Your task to perform on an android device: turn notification dots off Image 0: 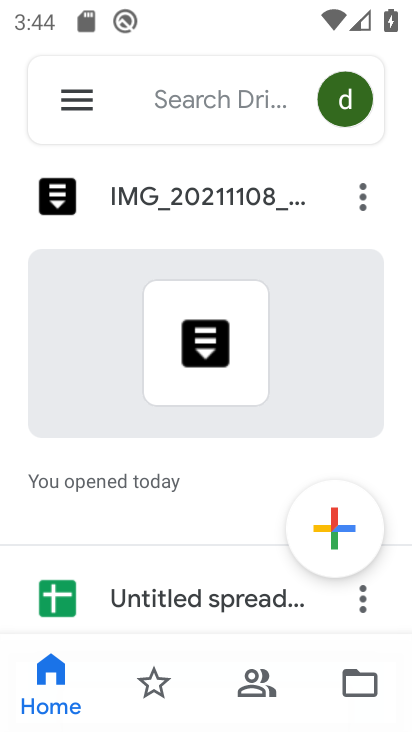
Step 0: press back button
Your task to perform on an android device: turn notification dots off Image 1: 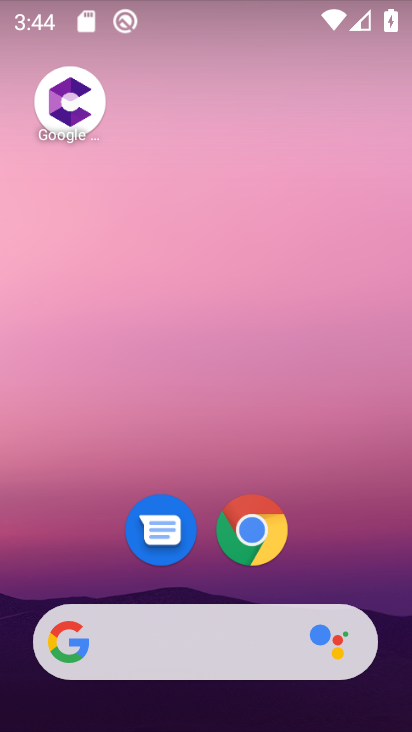
Step 1: drag from (138, 579) to (226, 48)
Your task to perform on an android device: turn notification dots off Image 2: 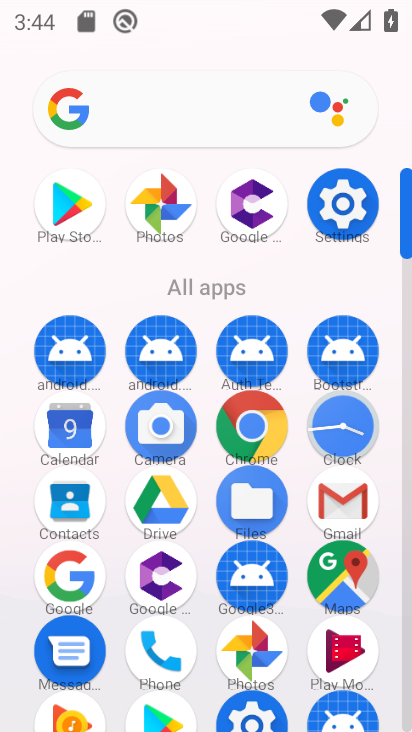
Step 2: click (351, 193)
Your task to perform on an android device: turn notification dots off Image 3: 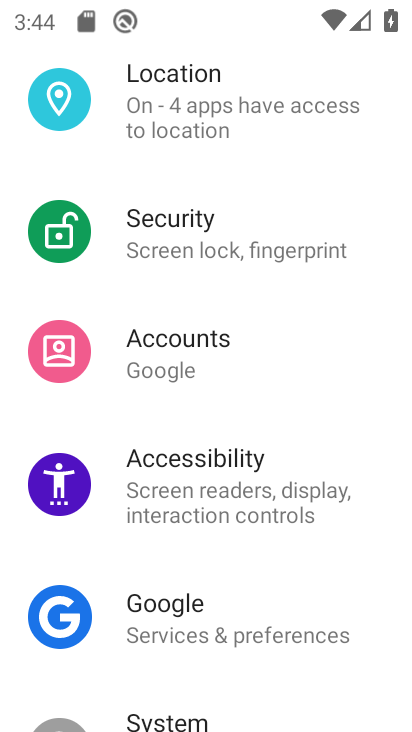
Step 3: drag from (276, 128) to (224, 676)
Your task to perform on an android device: turn notification dots off Image 4: 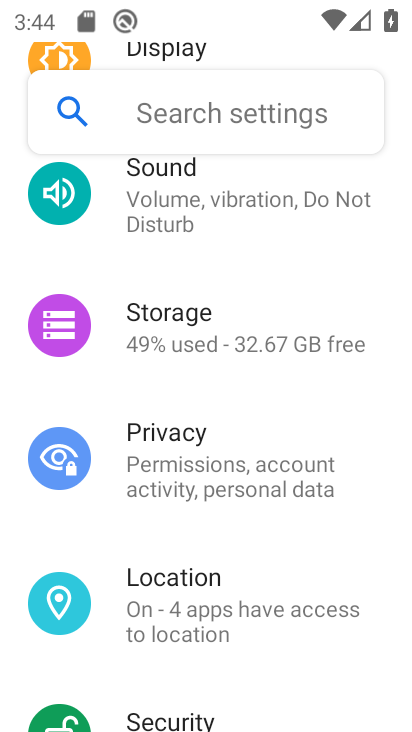
Step 4: drag from (251, 252) to (178, 725)
Your task to perform on an android device: turn notification dots off Image 5: 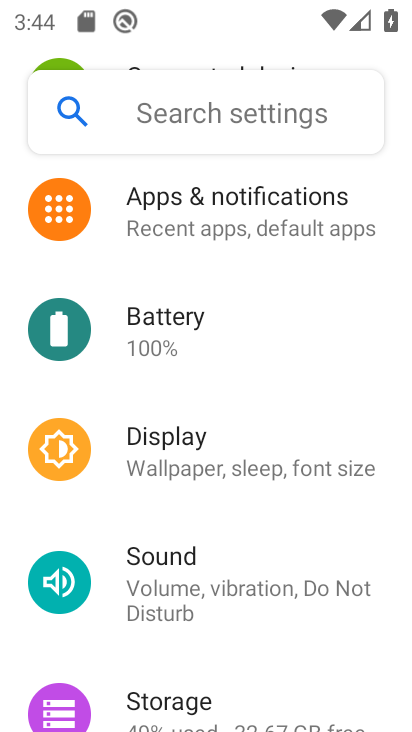
Step 5: click (252, 207)
Your task to perform on an android device: turn notification dots off Image 6: 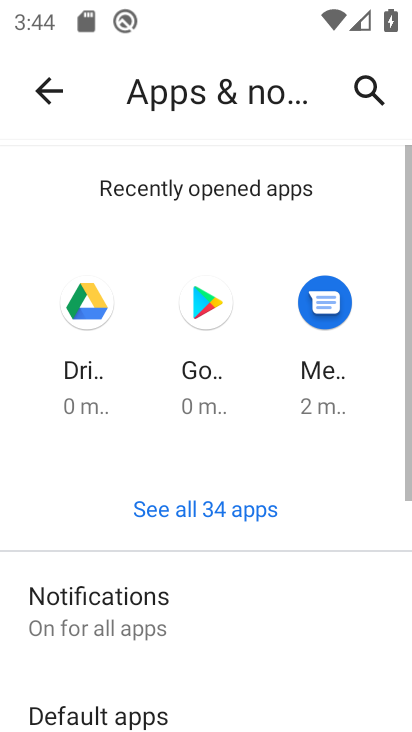
Step 6: drag from (98, 684) to (216, 298)
Your task to perform on an android device: turn notification dots off Image 7: 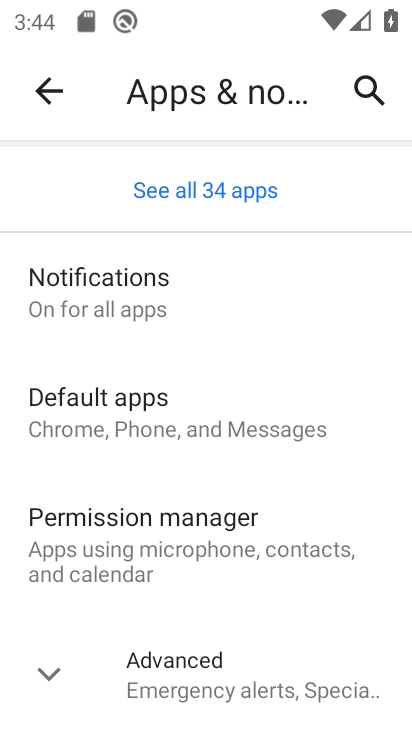
Step 7: click (135, 264)
Your task to perform on an android device: turn notification dots off Image 8: 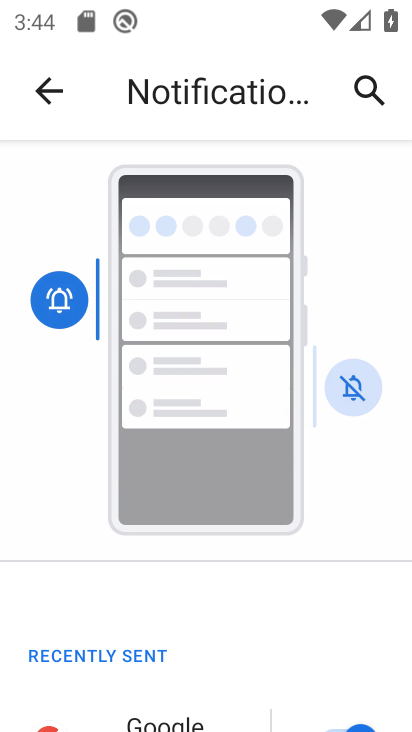
Step 8: drag from (150, 678) to (264, 138)
Your task to perform on an android device: turn notification dots off Image 9: 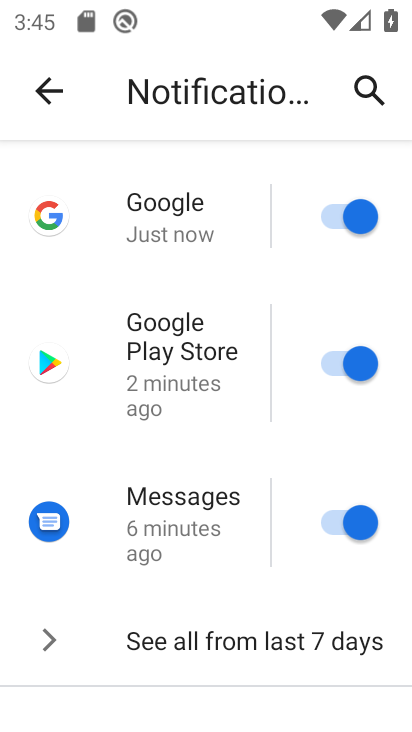
Step 9: drag from (189, 694) to (294, 154)
Your task to perform on an android device: turn notification dots off Image 10: 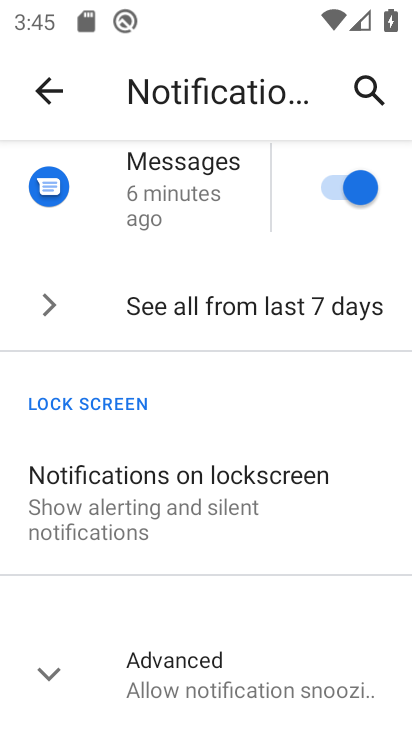
Step 10: click (173, 686)
Your task to perform on an android device: turn notification dots off Image 11: 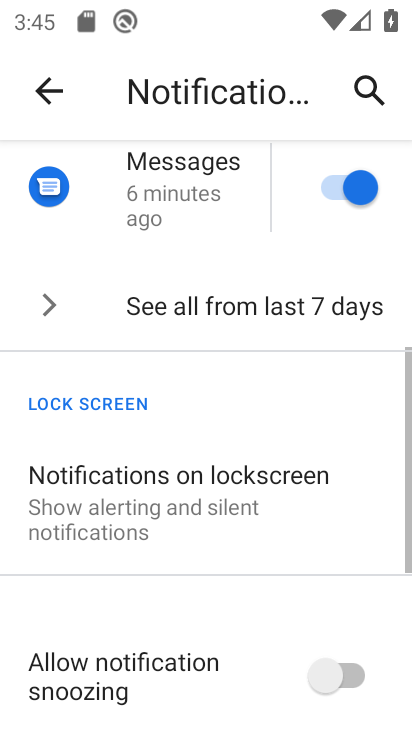
Step 11: drag from (173, 685) to (261, 253)
Your task to perform on an android device: turn notification dots off Image 12: 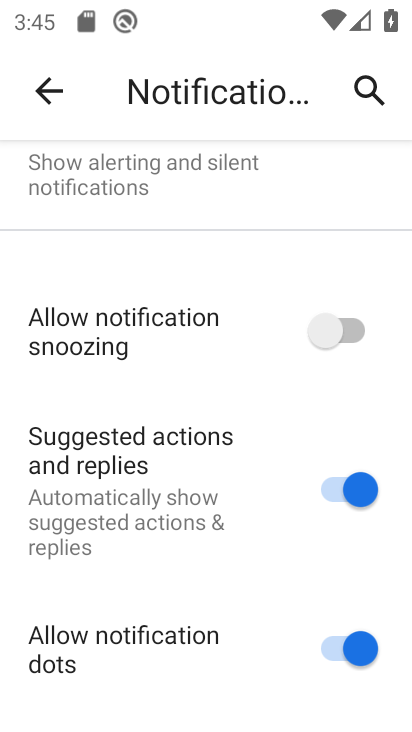
Step 12: click (349, 654)
Your task to perform on an android device: turn notification dots off Image 13: 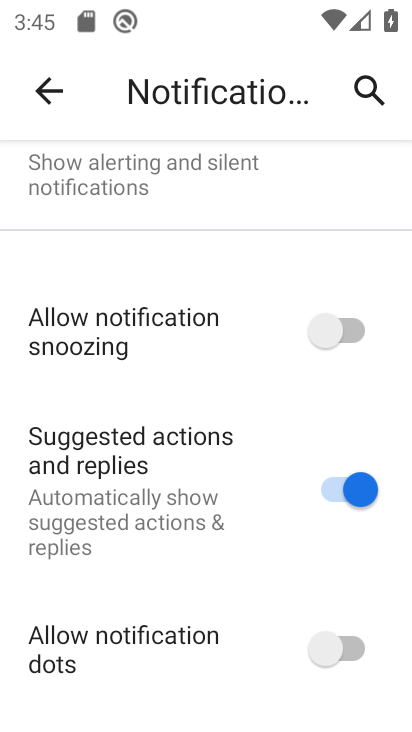
Step 13: task complete